Your task to perform on an android device: Is it going to rain today? Image 0: 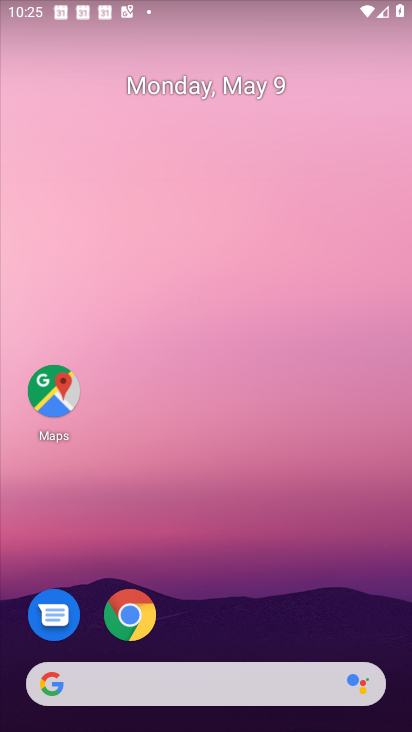
Step 0: drag from (257, 615) to (262, 177)
Your task to perform on an android device: Is it going to rain today? Image 1: 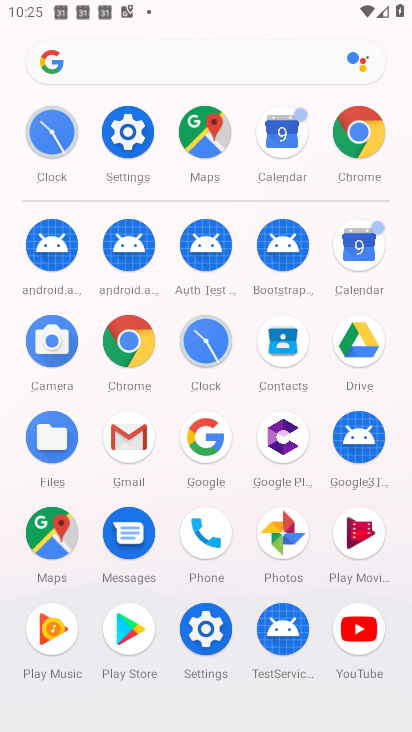
Step 1: click (109, 76)
Your task to perform on an android device: Is it going to rain today? Image 2: 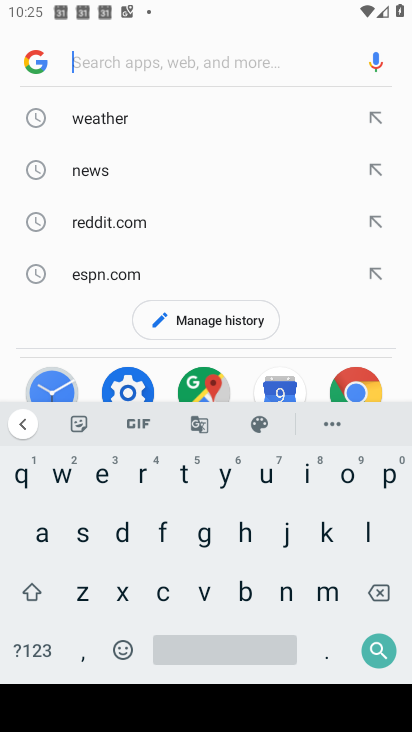
Step 2: click (105, 120)
Your task to perform on an android device: Is it going to rain today? Image 3: 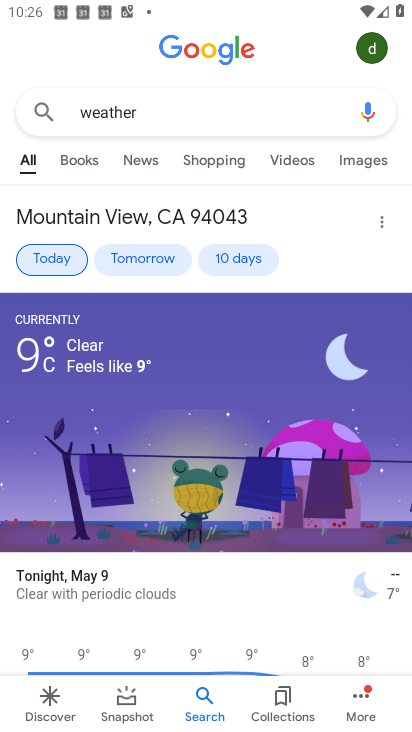
Step 3: task complete